Your task to perform on an android device: turn notification dots on Image 0: 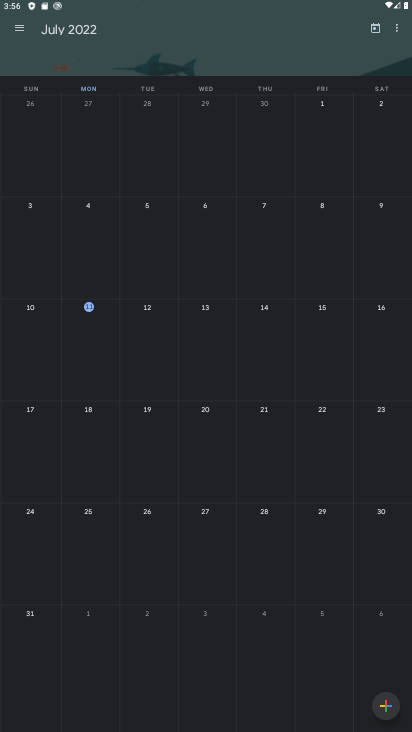
Step 0: press home button
Your task to perform on an android device: turn notification dots on Image 1: 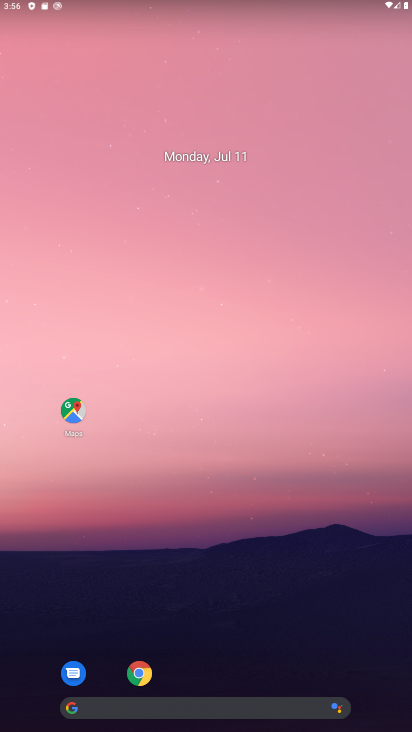
Step 1: drag from (242, 653) to (243, 136)
Your task to perform on an android device: turn notification dots on Image 2: 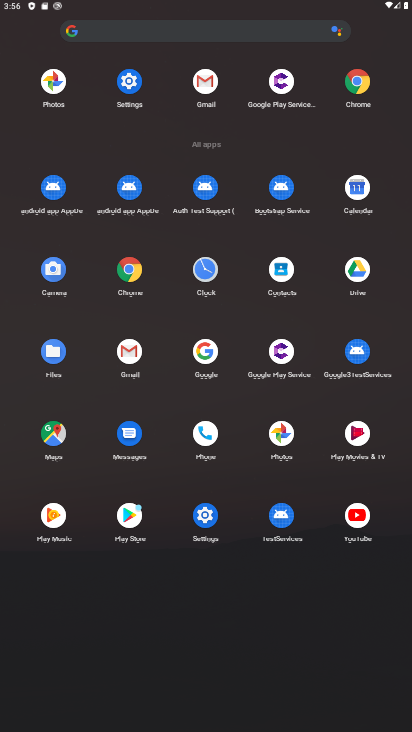
Step 2: click (127, 82)
Your task to perform on an android device: turn notification dots on Image 3: 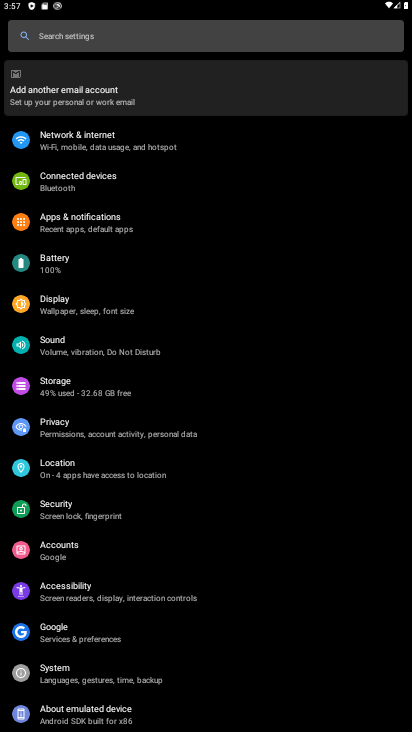
Step 3: click (87, 222)
Your task to perform on an android device: turn notification dots on Image 4: 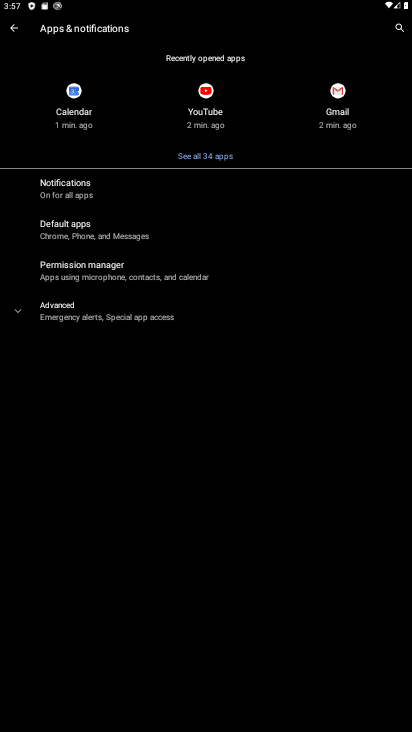
Step 4: click (77, 187)
Your task to perform on an android device: turn notification dots on Image 5: 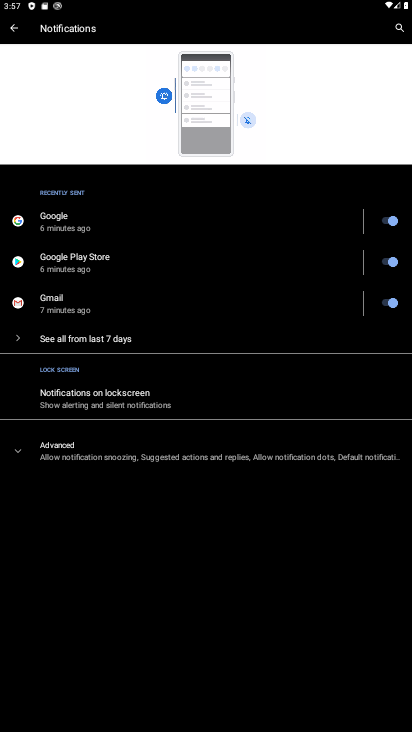
Step 5: click (96, 455)
Your task to perform on an android device: turn notification dots on Image 6: 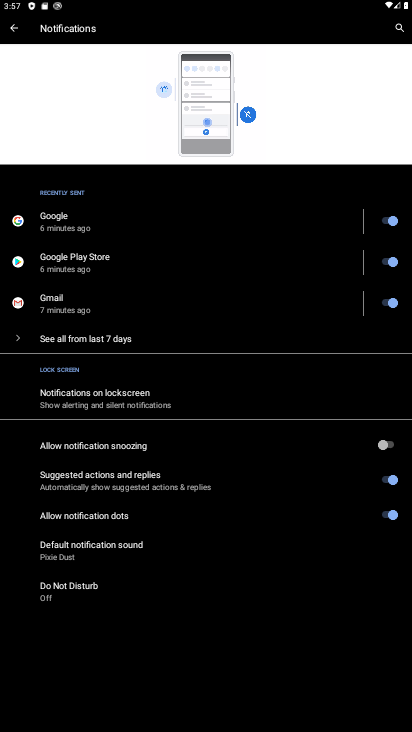
Step 6: task complete